Your task to perform on an android device: Open Google Image 0: 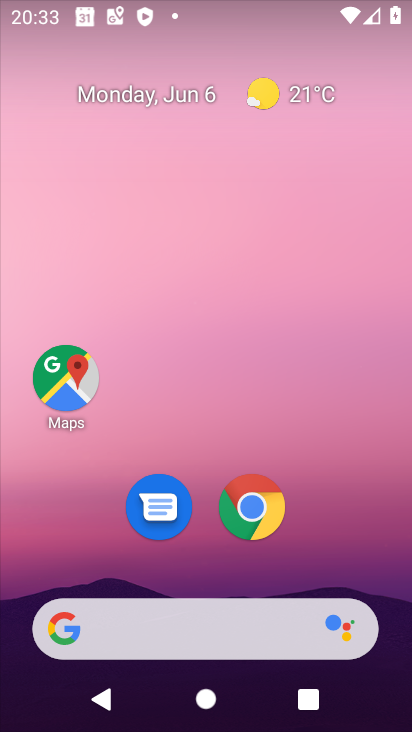
Step 0: click (170, 627)
Your task to perform on an android device: Open Google Image 1: 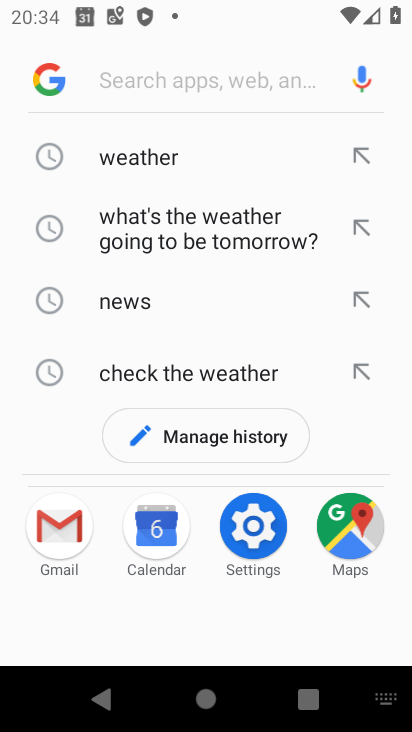
Step 1: task complete